Your task to perform on an android device: toggle wifi Image 0: 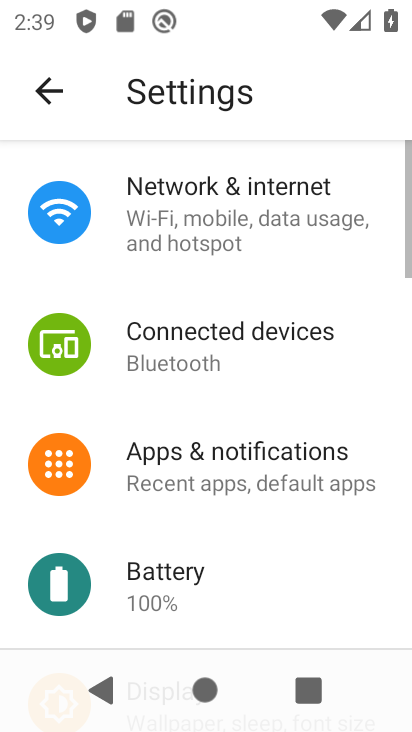
Step 0: press home button
Your task to perform on an android device: toggle wifi Image 1: 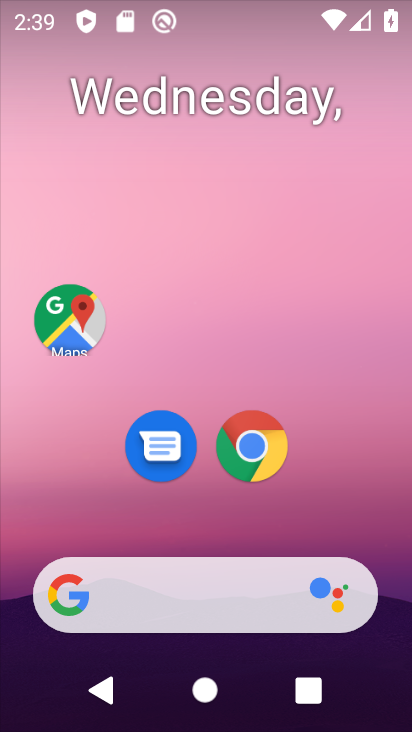
Step 1: drag from (308, 460) to (305, 148)
Your task to perform on an android device: toggle wifi Image 2: 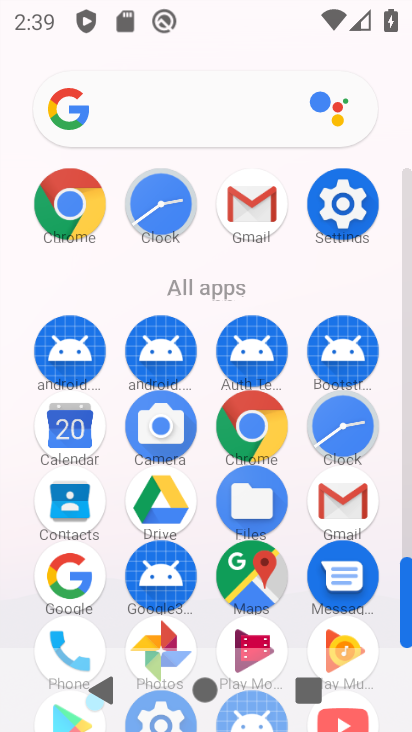
Step 2: click (337, 200)
Your task to perform on an android device: toggle wifi Image 3: 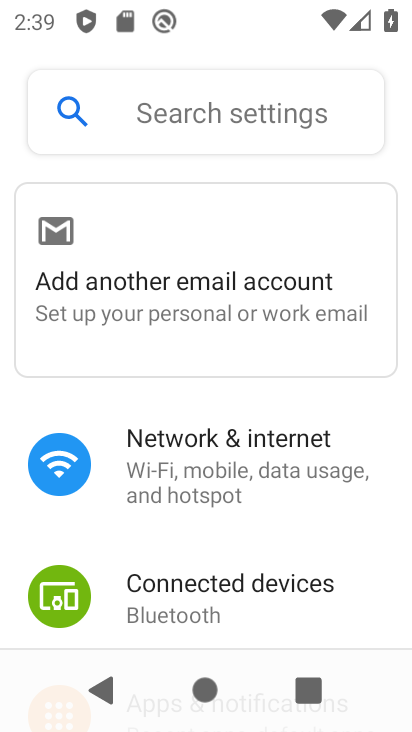
Step 3: click (163, 450)
Your task to perform on an android device: toggle wifi Image 4: 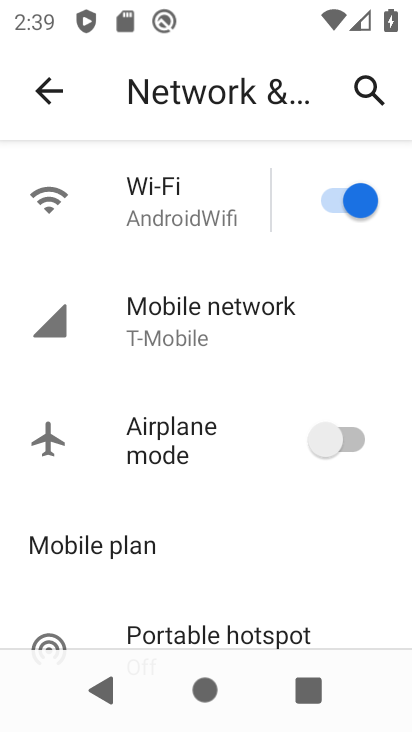
Step 4: click (327, 193)
Your task to perform on an android device: toggle wifi Image 5: 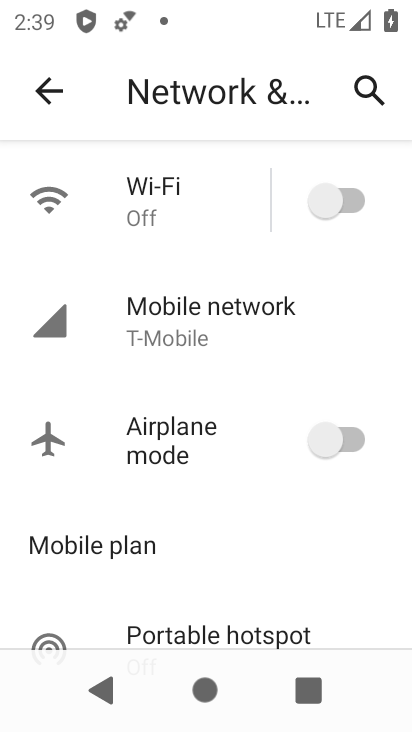
Step 5: task complete